Your task to perform on an android device: Search for vegetarian restaurants on Maps Image 0: 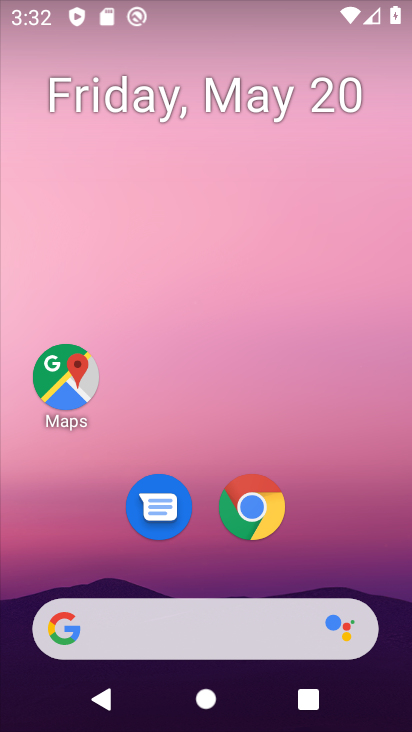
Step 0: click (62, 381)
Your task to perform on an android device: Search for vegetarian restaurants on Maps Image 1: 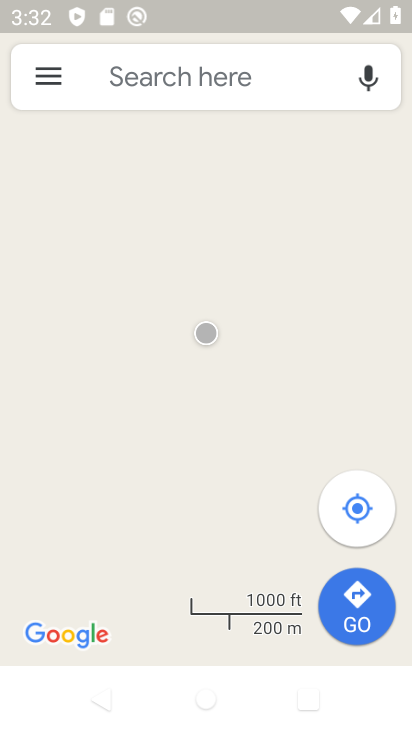
Step 1: click (210, 83)
Your task to perform on an android device: Search for vegetarian restaurants on Maps Image 2: 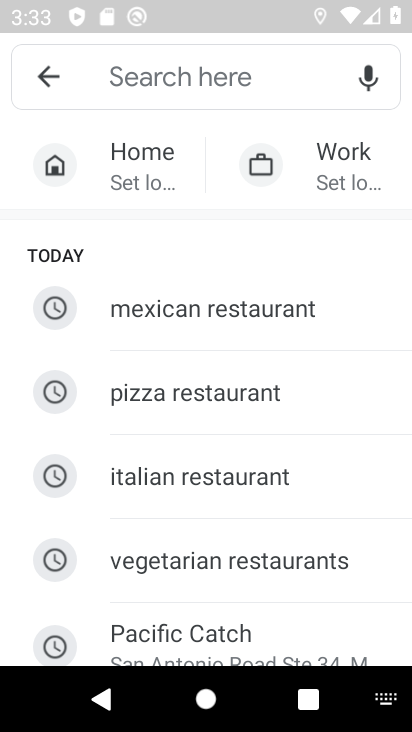
Step 2: type "vegetarian restaurants"
Your task to perform on an android device: Search for vegetarian restaurants on Maps Image 3: 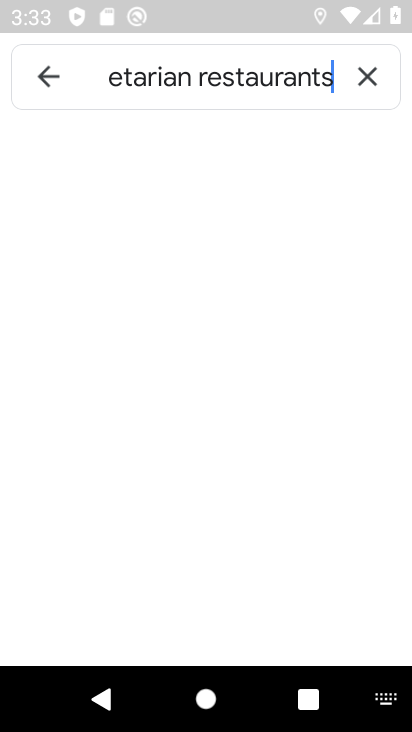
Step 3: type ""
Your task to perform on an android device: Search for vegetarian restaurants on Maps Image 4: 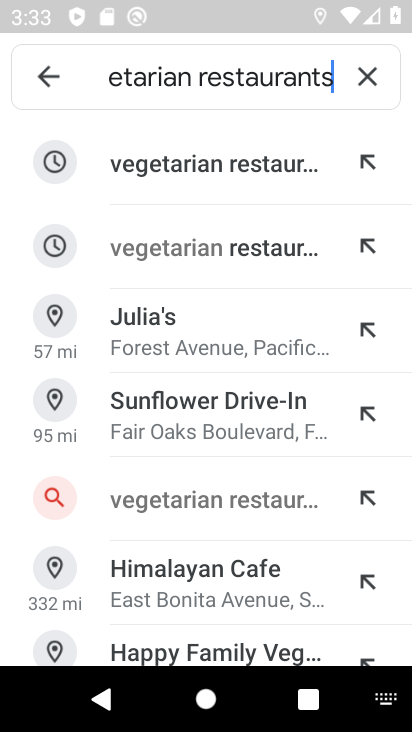
Step 4: click (228, 171)
Your task to perform on an android device: Search for vegetarian restaurants on Maps Image 5: 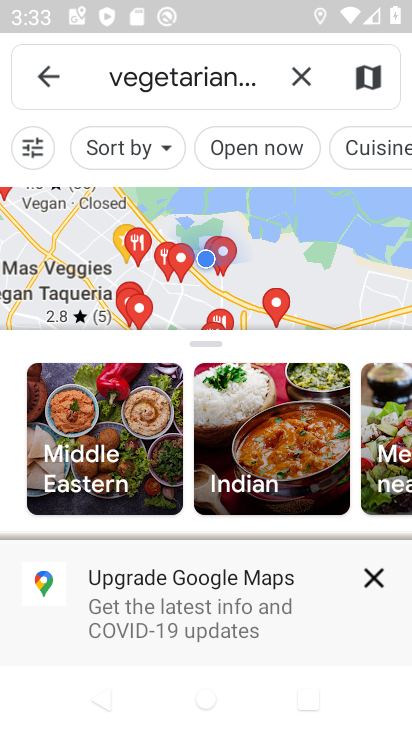
Step 5: task complete